Your task to perform on an android device: add a contact Image 0: 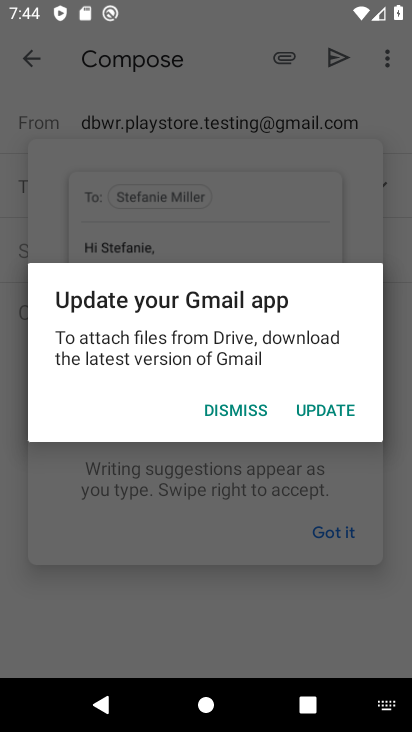
Step 0: press home button
Your task to perform on an android device: add a contact Image 1: 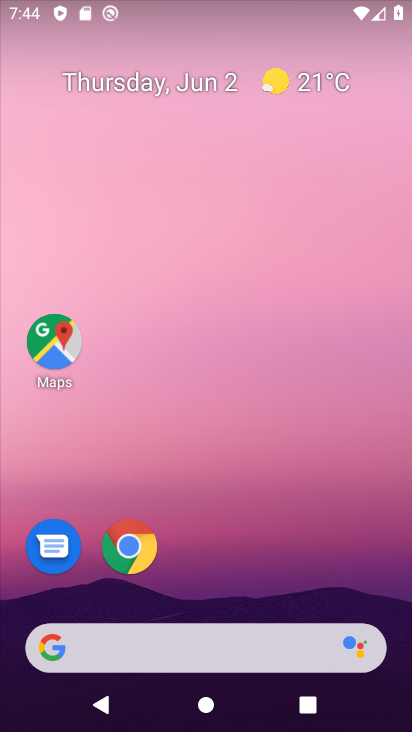
Step 1: drag from (210, 539) to (132, 0)
Your task to perform on an android device: add a contact Image 2: 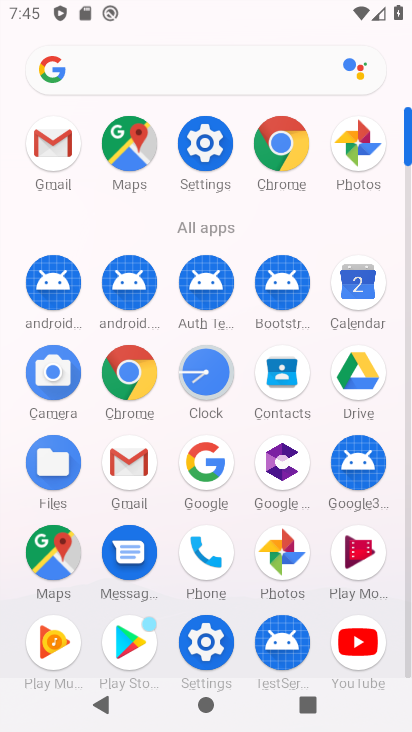
Step 2: click (293, 372)
Your task to perform on an android device: add a contact Image 3: 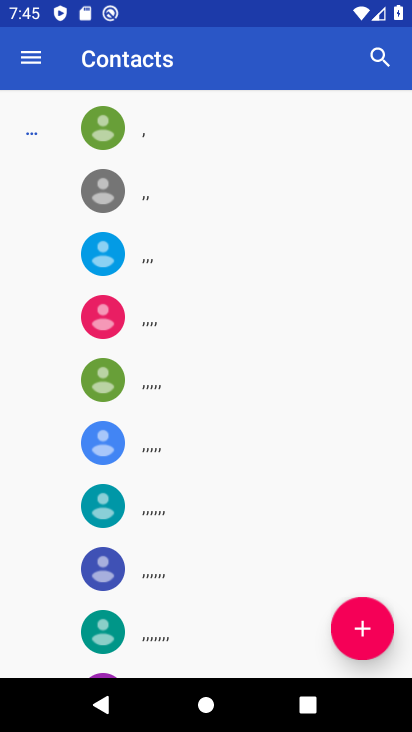
Step 3: click (347, 594)
Your task to perform on an android device: add a contact Image 4: 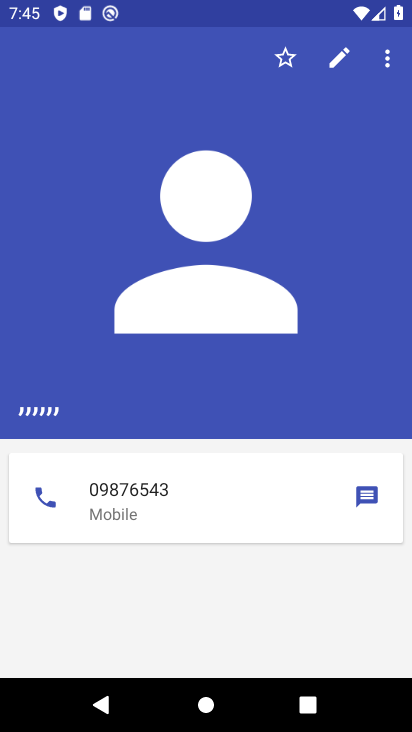
Step 4: press back button
Your task to perform on an android device: add a contact Image 5: 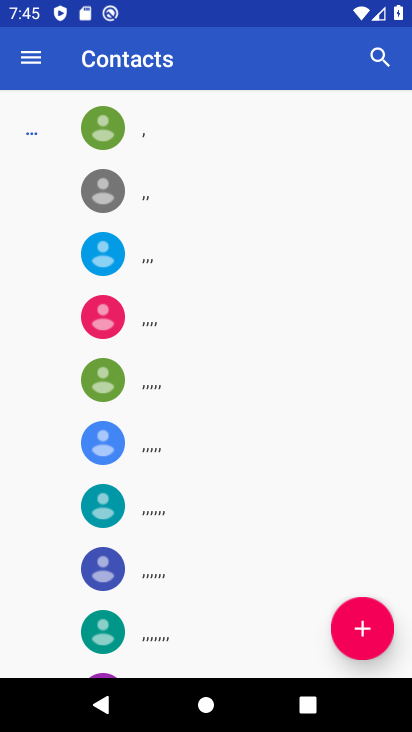
Step 5: click (379, 629)
Your task to perform on an android device: add a contact Image 6: 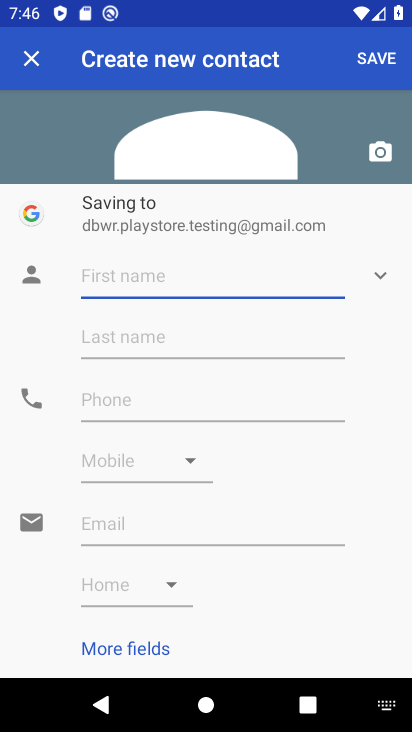
Step 6: type "Saptarishi "
Your task to perform on an android device: add a contact Image 7: 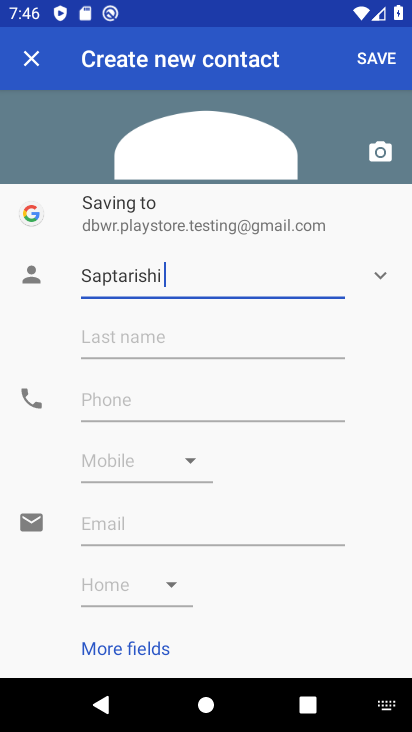
Step 7: click (235, 402)
Your task to perform on an android device: add a contact Image 8: 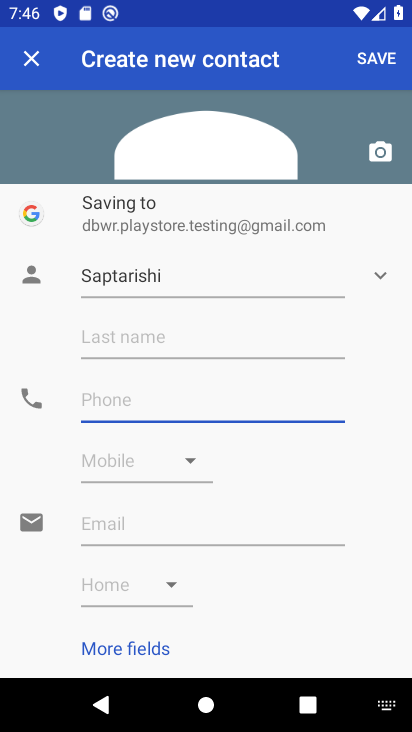
Step 8: type "01122300557"
Your task to perform on an android device: add a contact Image 9: 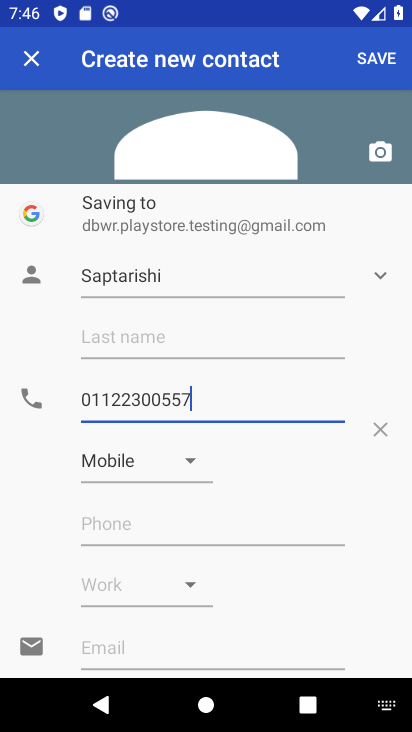
Step 9: click (375, 53)
Your task to perform on an android device: add a contact Image 10: 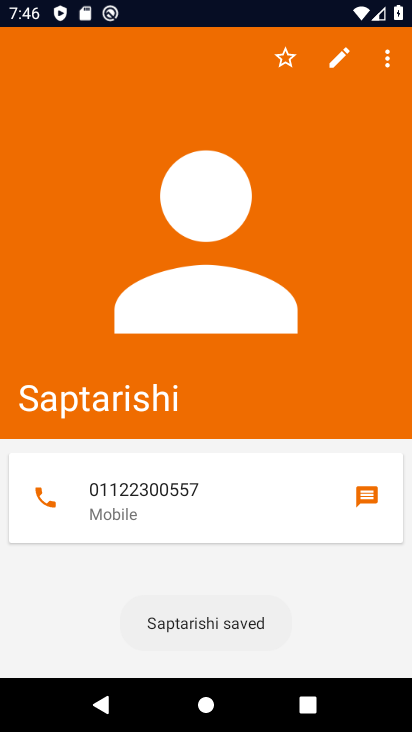
Step 10: task complete